Your task to perform on an android device: Open the calendar and show me this week's events? Image 0: 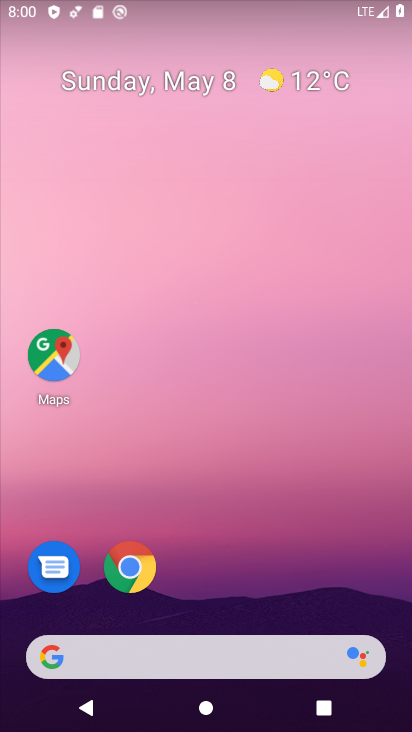
Step 0: drag from (178, 643) to (232, 15)
Your task to perform on an android device: Open the calendar and show me this week's events? Image 1: 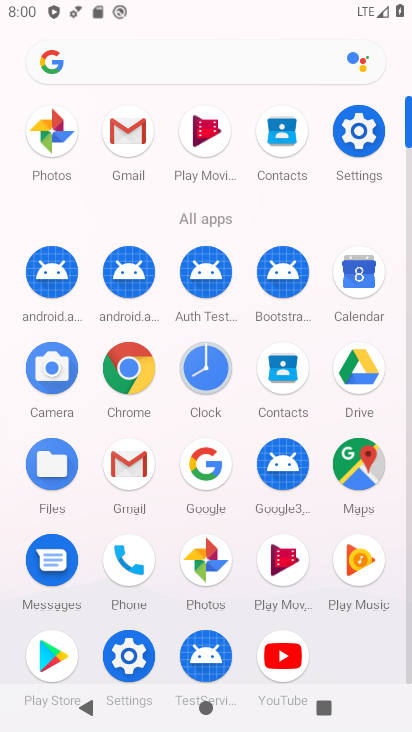
Step 1: click (370, 281)
Your task to perform on an android device: Open the calendar and show me this week's events? Image 2: 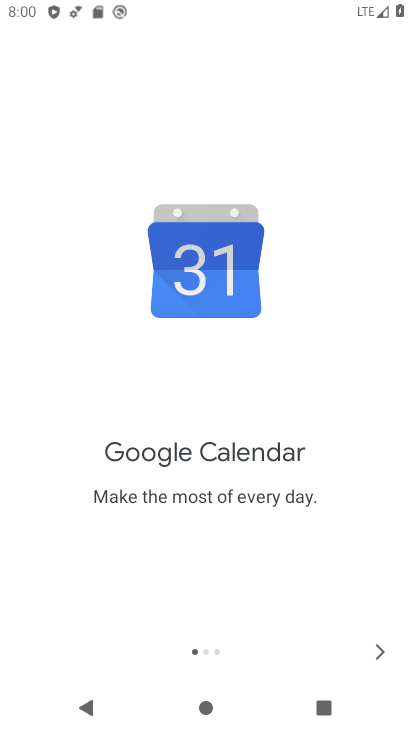
Step 2: click (386, 650)
Your task to perform on an android device: Open the calendar and show me this week's events? Image 3: 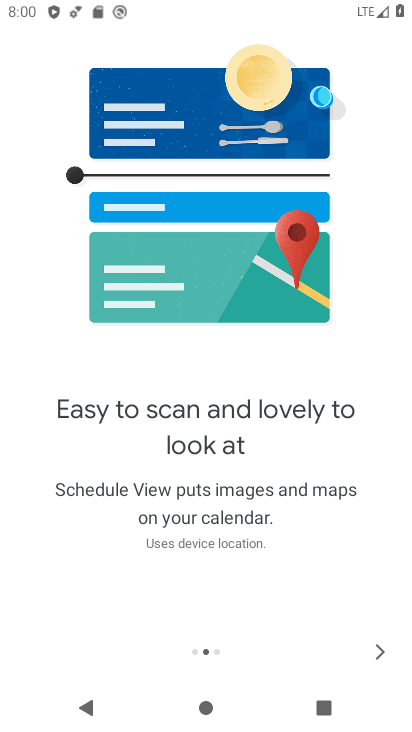
Step 3: click (386, 650)
Your task to perform on an android device: Open the calendar and show me this week's events? Image 4: 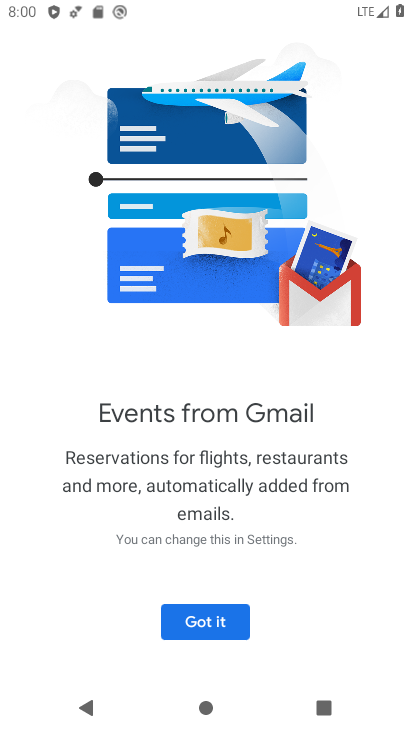
Step 4: click (218, 626)
Your task to perform on an android device: Open the calendar and show me this week's events? Image 5: 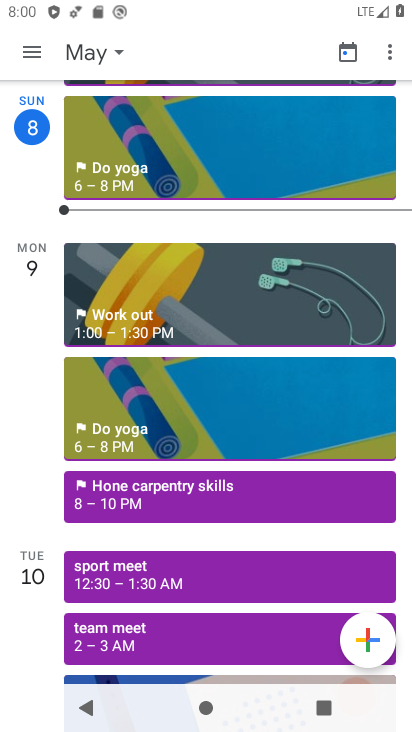
Step 5: click (35, 55)
Your task to perform on an android device: Open the calendar and show me this week's events? Image 6: 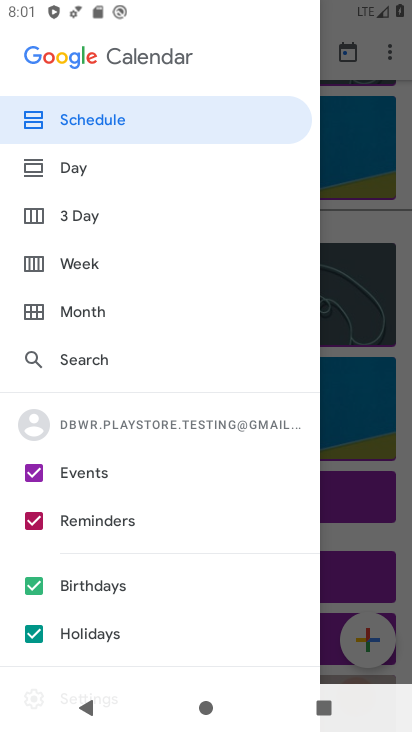
Step 6: click (85, 270)
Your task to perform on an android device: Open the calendar and show me this week's events? Image 7: 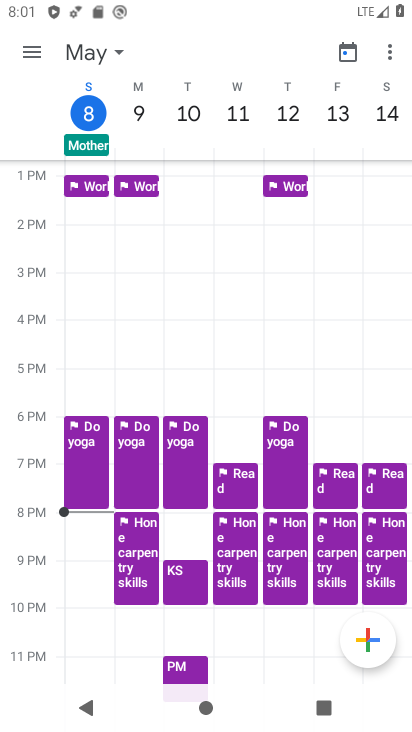
Step 7: task complete